Your task to perform on an android device: toggle pop-ups in chrome Image 0: 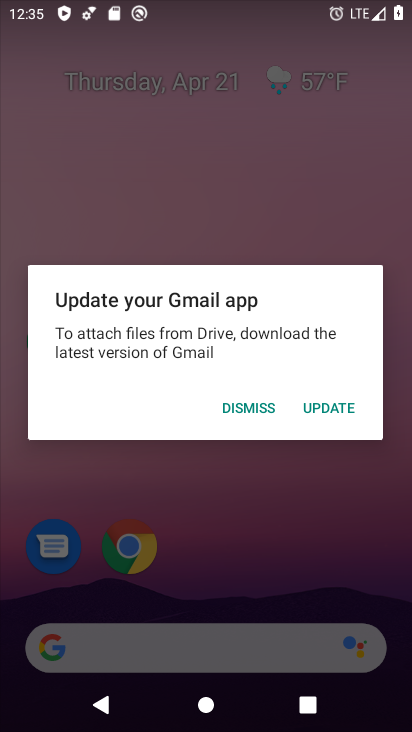
Step 0: click (263, 412)
Your task to perform on an android device: toggle pop-ups in chrome Image 1: 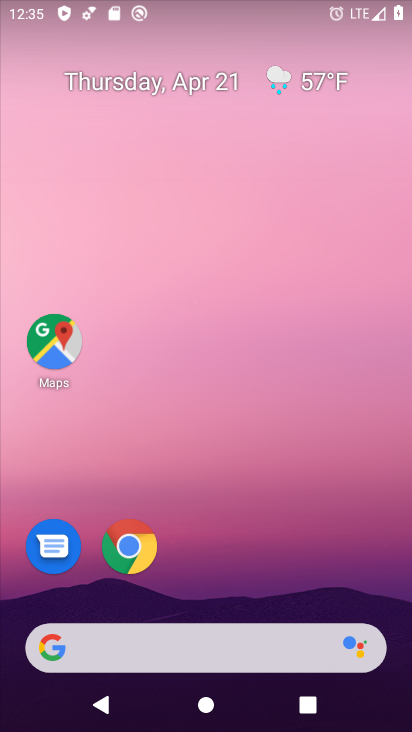
Step 1: click (162, 545)
Your task to perform on an android device: toggle pop-ups in chrome Image 2: 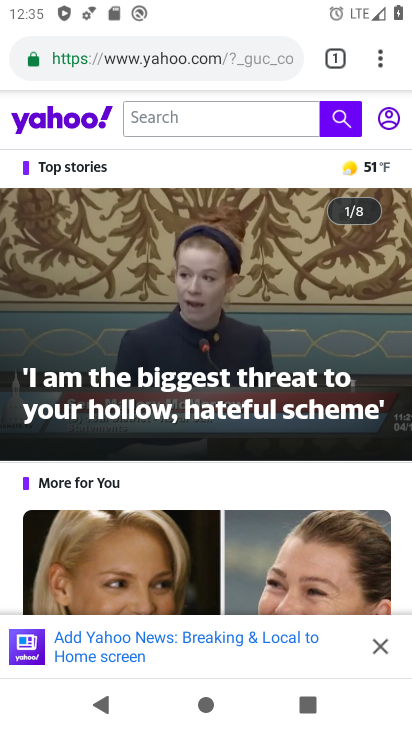
Step 2: click (378, 77)
Your task to perform on an android device: toggle pop-ups in chrome Image 3: 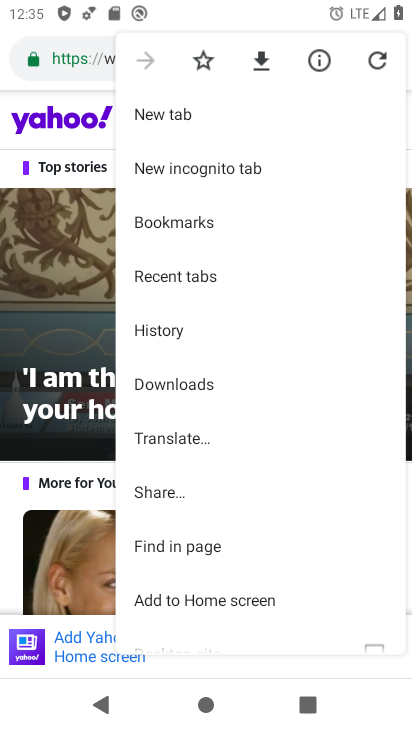
Step 3: drag from (249, 256) to (263, 64)
Your task to perform on an android device: toggle pop-ups in chrome Image 4: 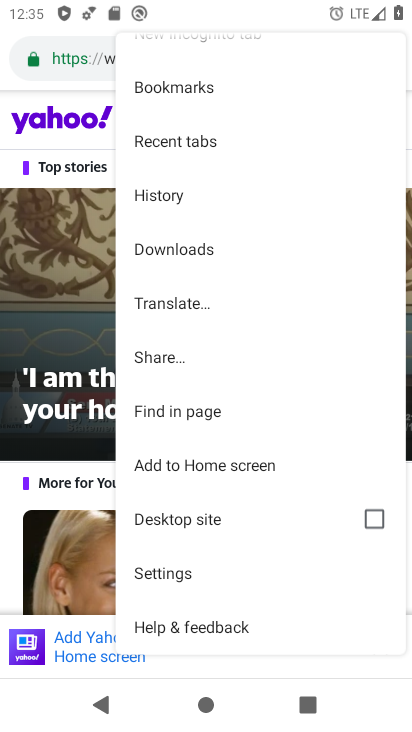
Step 4: click (195, 575)
Your task to perform on an android device: toggle pop-ups in chrome Image 5: 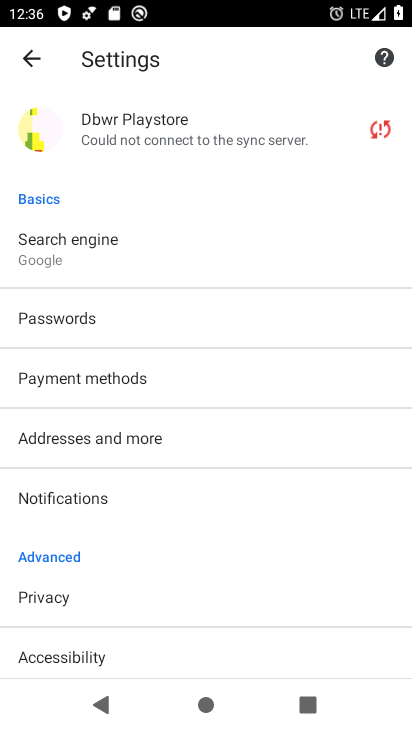
Step 5: drag from (243, 600) to (184, 257)
Your task to perform on an android device: toggle pop-ups in chrome Image 6: 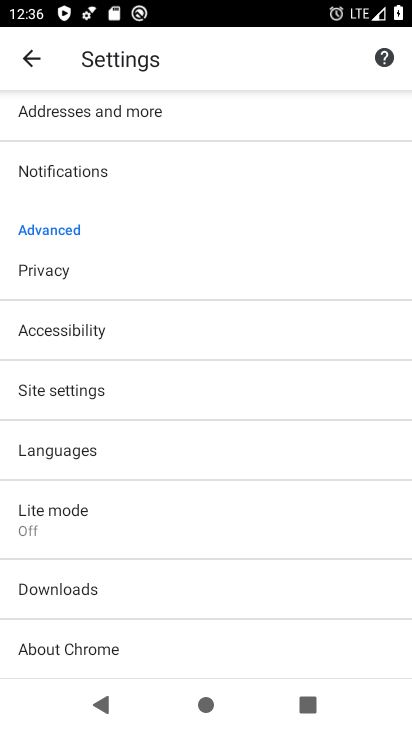
Step 6: click (101, 390)
Your task to perform on an android device: toggle pop-ups in chrome Image 7: 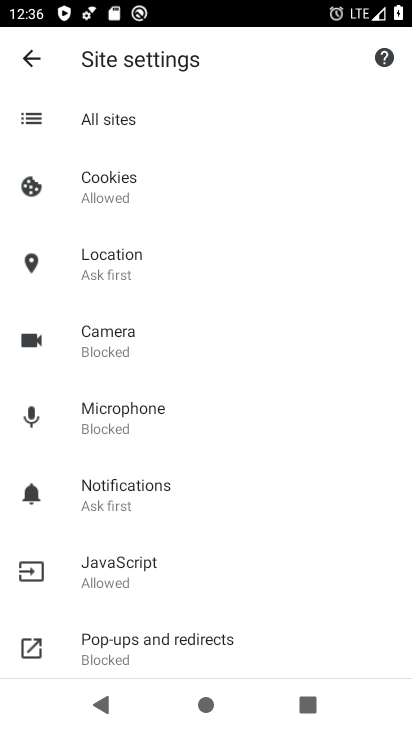
Step 7: click (154, 650)
Your task to perform on an android device: toggle pop-ups in chrome Image 8: 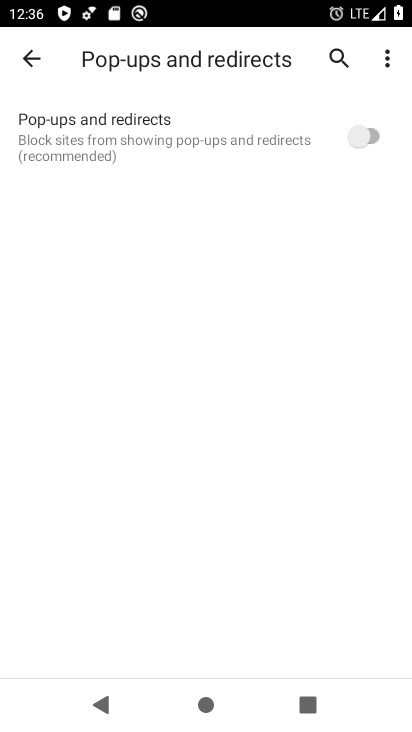
Step 8: click (367, 129)
Your task to perform on an android device: toggle pop-ups in chrome Image 9: 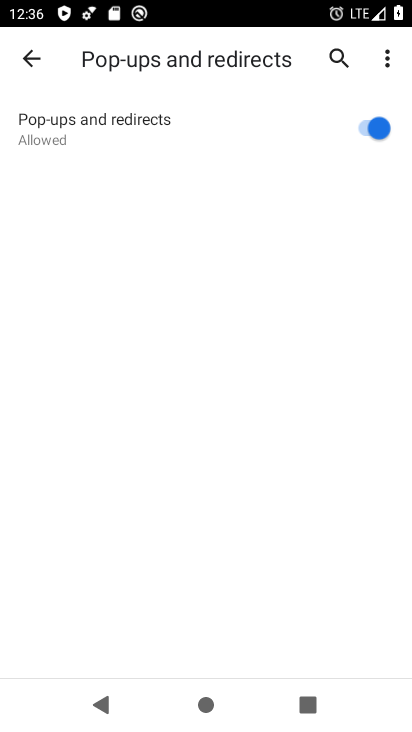
Step 9: task complete